Your task to perform on an android device: Empty the shopping cart on ebay.com. Add usb-c to usb-b to the cart on ebay.com Image 0: 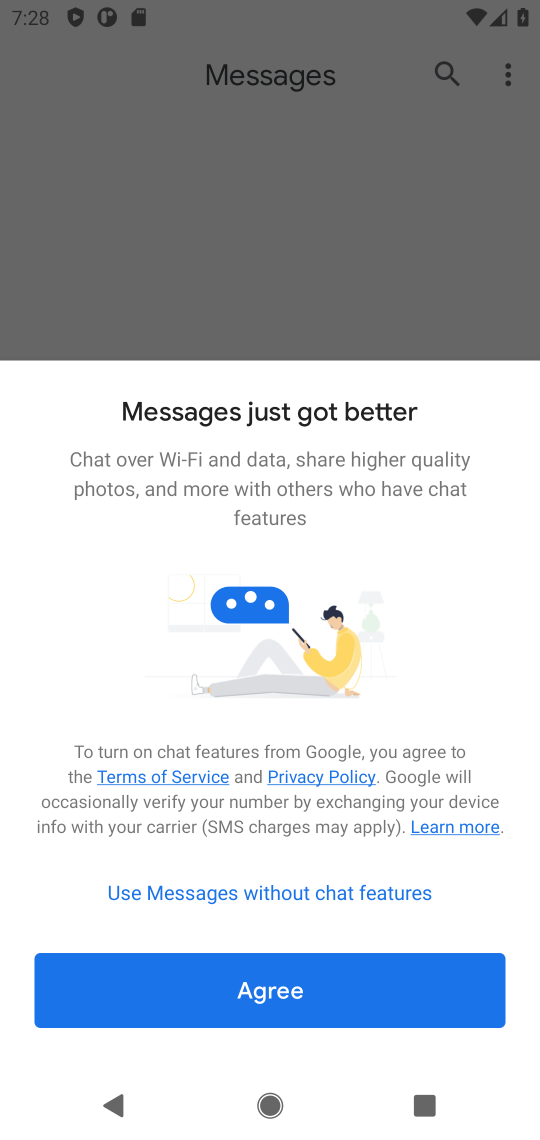
Step 0: press home button
Your task to perform on an android device: Empty the shopping cart on ebay.com. Add usb-c to usb-b to the cart on ebay.com Image 1: 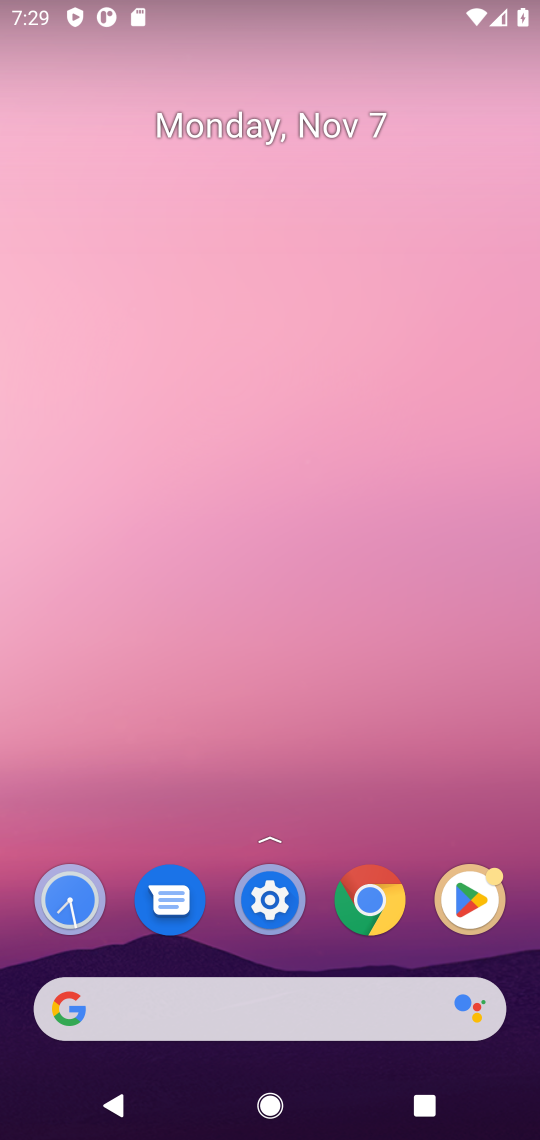
Step 1: click (178, 1033)
Your task to perform on an android device: Empty the shopping cart on ebay.com. Add usb-c to usb-b to the cart on ebay.com Image 2: 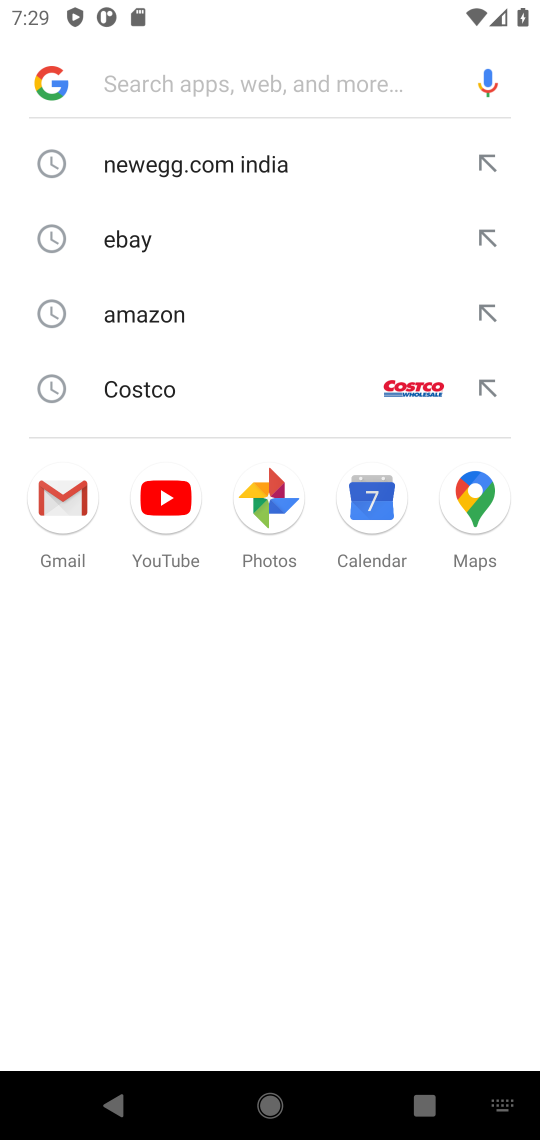
Step 2: click (206, 230)
Your task to perform on an android device: Empty the shopping cart on ebay.com. Add usb-c to usb-b to the cart on ebay.com Image 3: 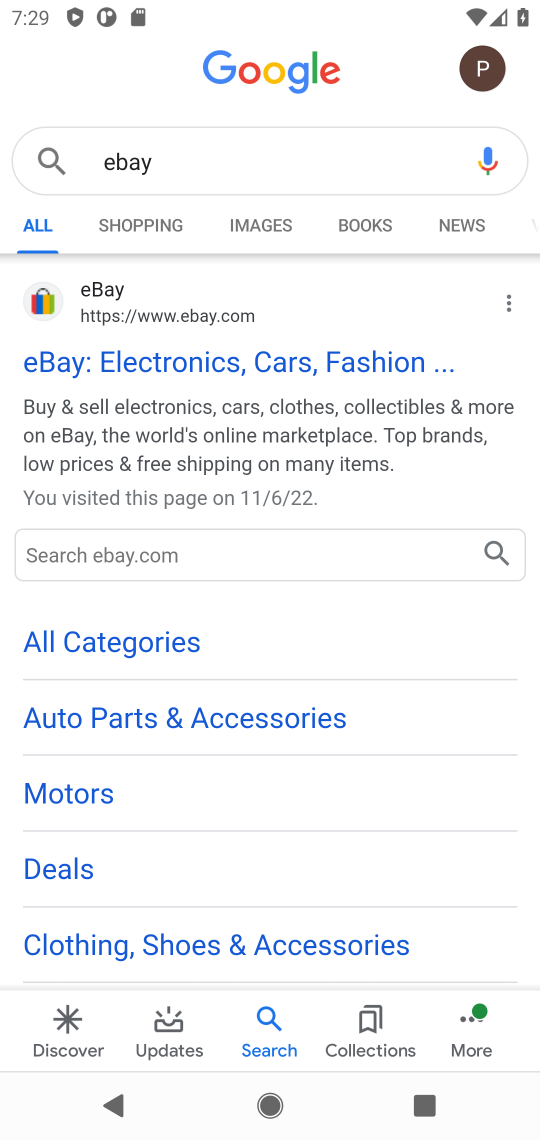
Step 3: click (223, 348)
Your task to perform on an android device: Empty the shopping cart on ebay.com. Add usb-c to usb-b to the cart on ebay.com Image 4: 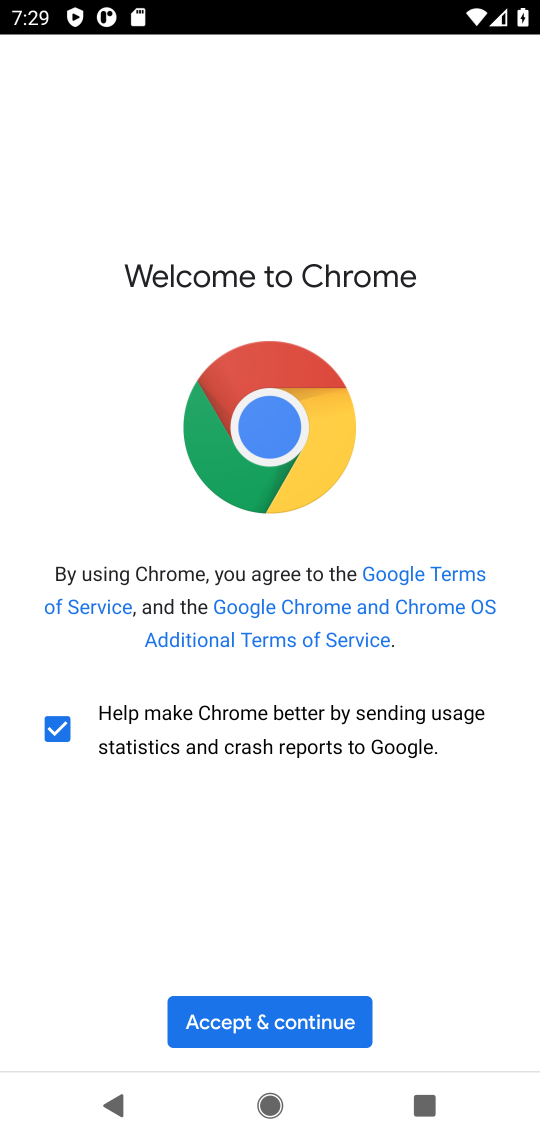
Step 4: click (320, 1021)
Your task to perform on an android device: Empty the shopping cart on ebay.com. Add usb-c to usb-b to the cart on ebay.com Image 5: 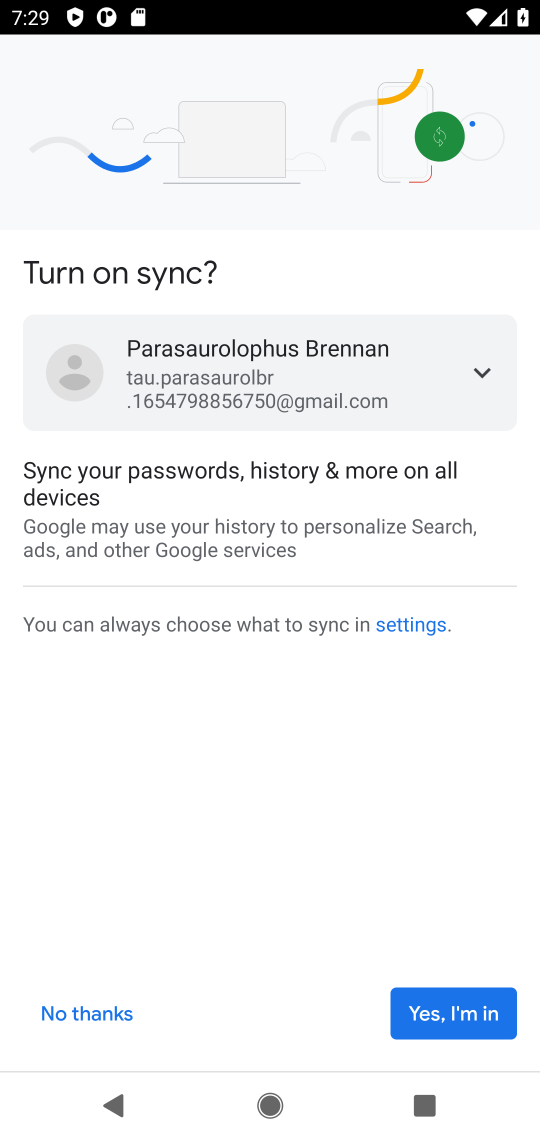
Step 5: click (393, 1017)
Your task to perform on an android device: Empty the shopping cart on ebay.com. Add usb-c to usb-b to the cart on ebay.com Image 6: 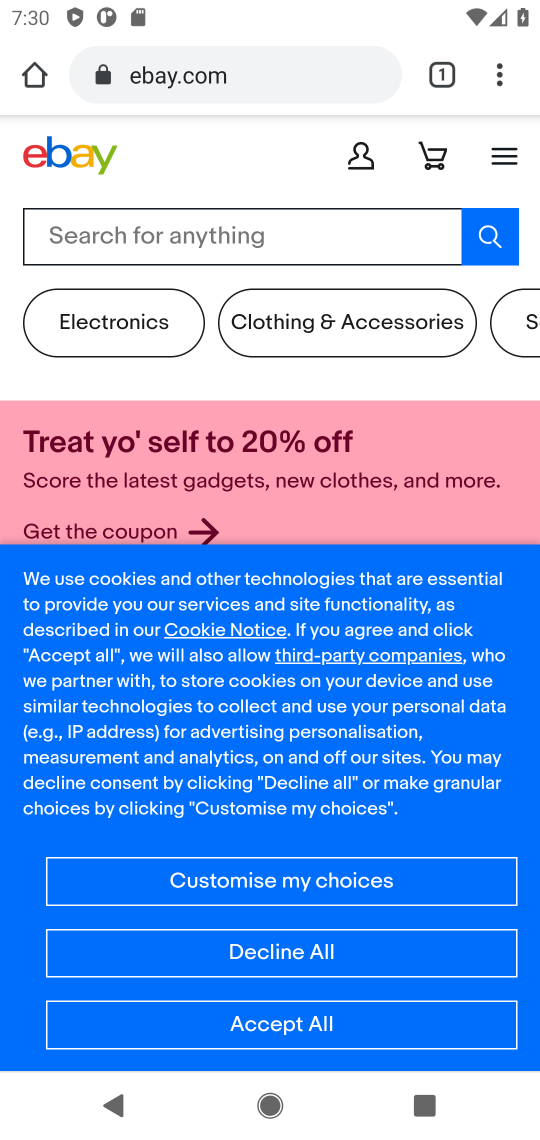
Step 6: click (214, 228)
Your task to perform on an android device: Empty the shopping cart on ebay.com. Add usb-c to usb-b to the cart on ebay.com Image 7: 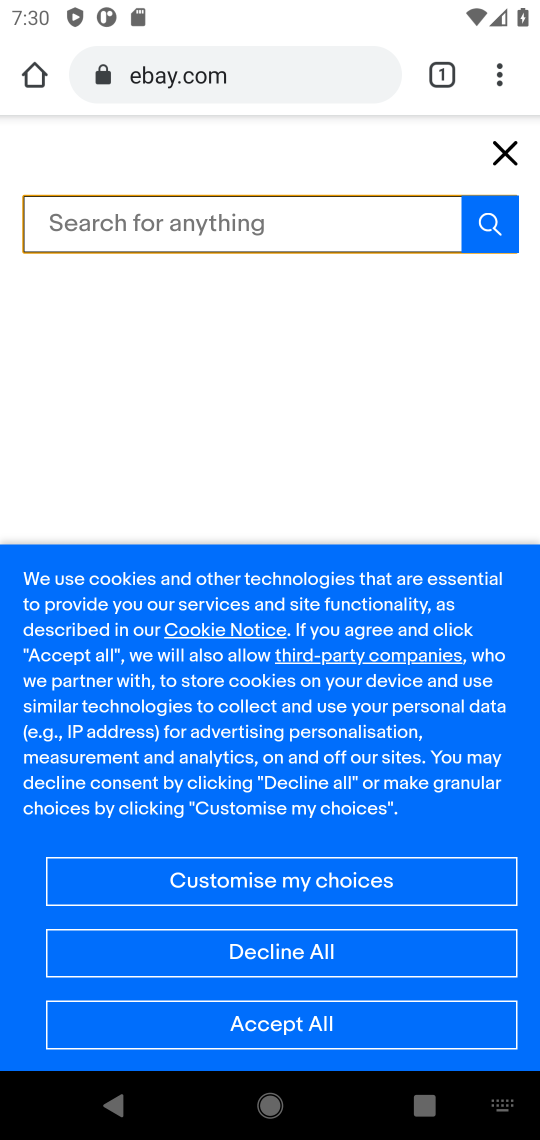
Step 7: type "usb-c to usb-b"
Your task to perform on an android device: Empty the shopping cart on ebay.com. Add usb-c to usb-b to the cart on ebay.com Image 8: 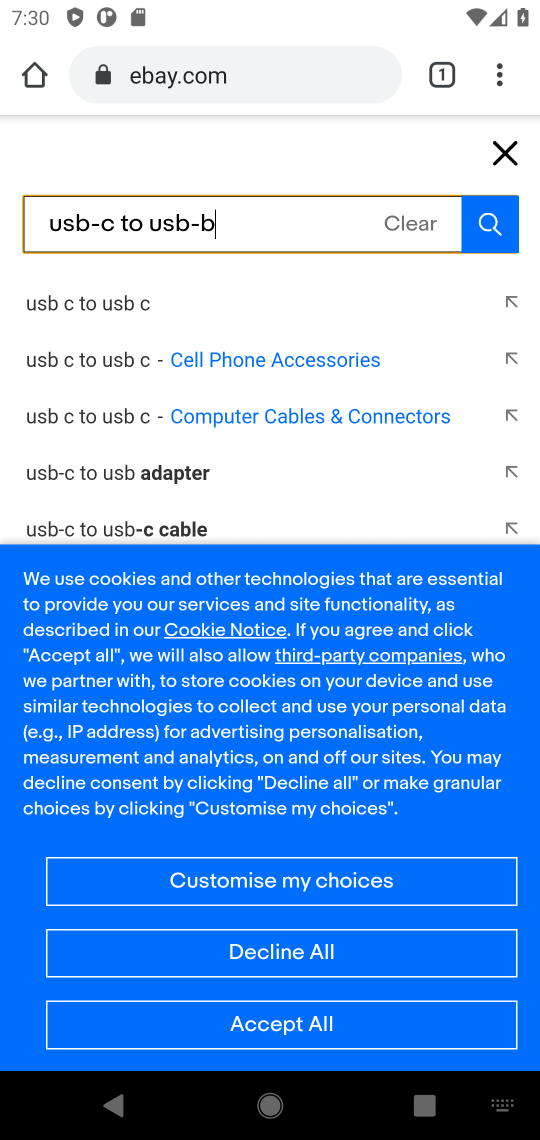
Step 8: click (124, 295)
Your task to perform on an android device: Empty the shopping cart on ebay.com. Add usb-c to usb-b to the cart on ebay.com Image 9: 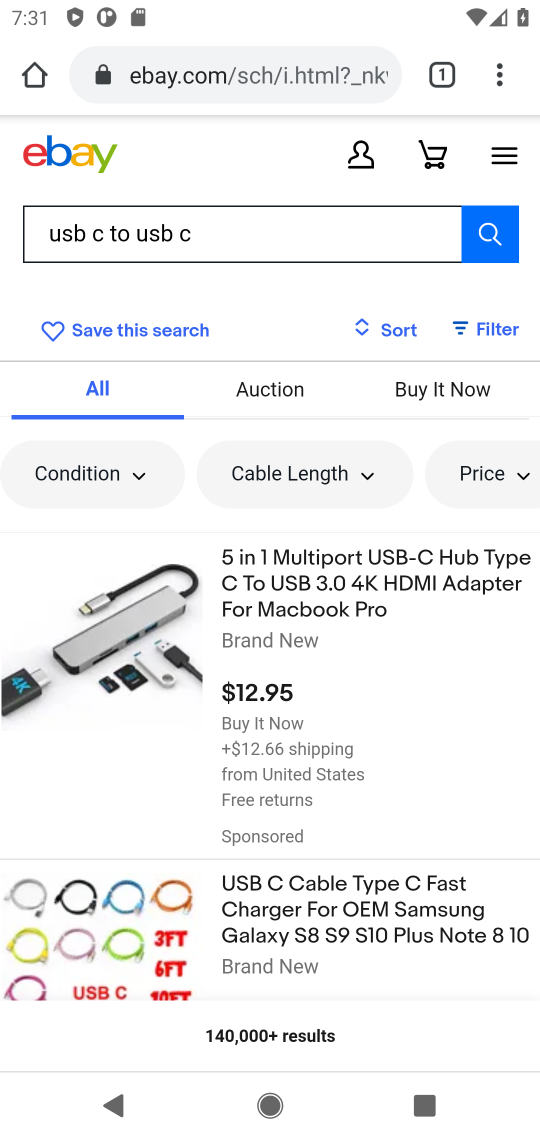
Step 9: click (359, 553)
Your task to perform on an android device: Empty the shopping cart on ebay.com. Add usb-c to usb-b to the cart on ebay.com Image 10: 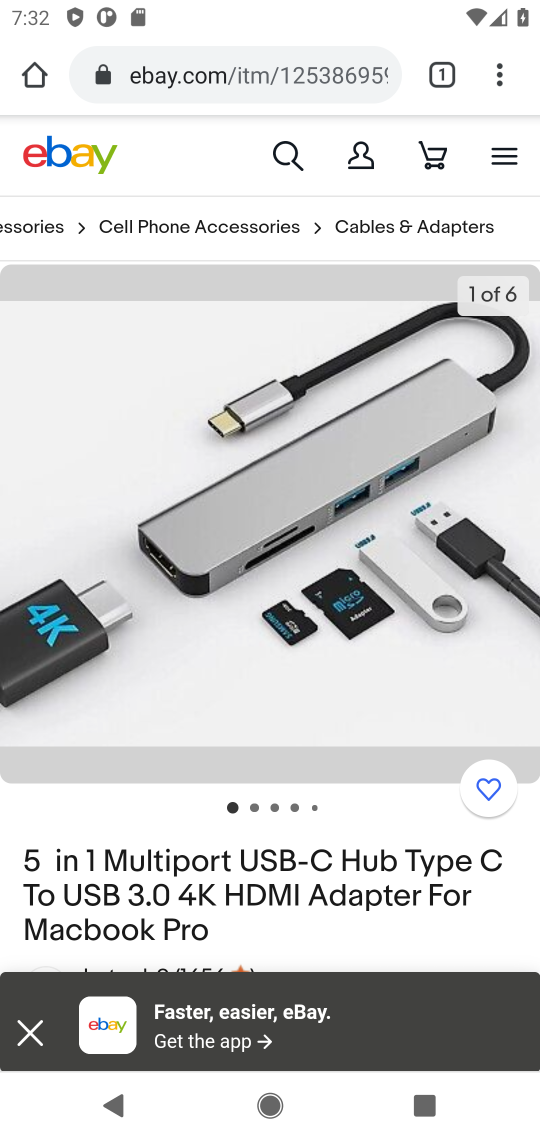
Step 10: task complete